Your task to perform on an android device: Is it going to rain tomorrow? Image 0: 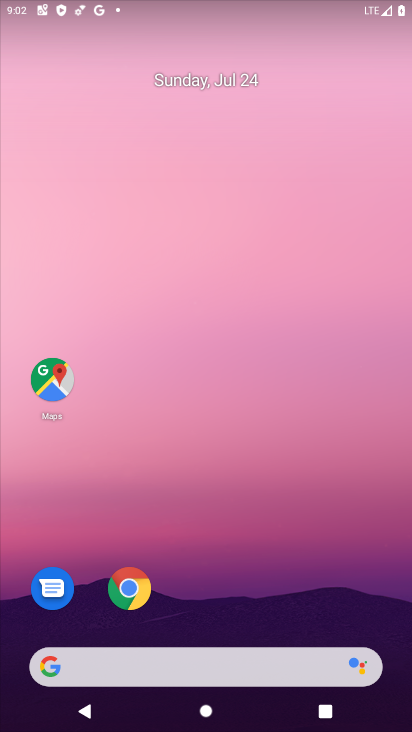
Step 0: drag from (221, 663) to (214, 180)
Your task to perform on an android device: Is it going to rain tomorrow? Image 1: 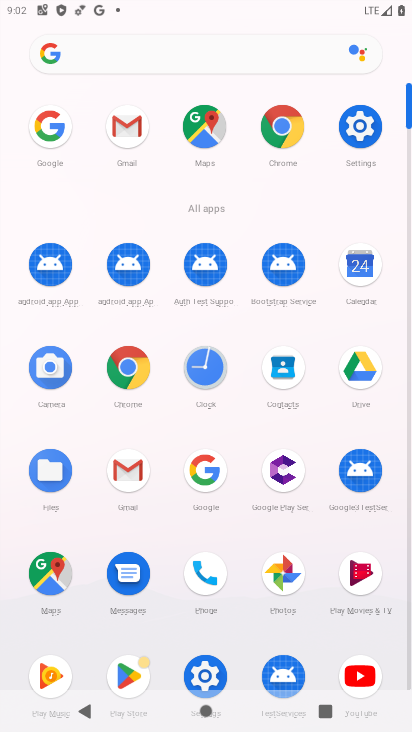
Step 1: click (294, 131)
Your task to perform on an android device: Is it going to rain tomorrow? Image 2: 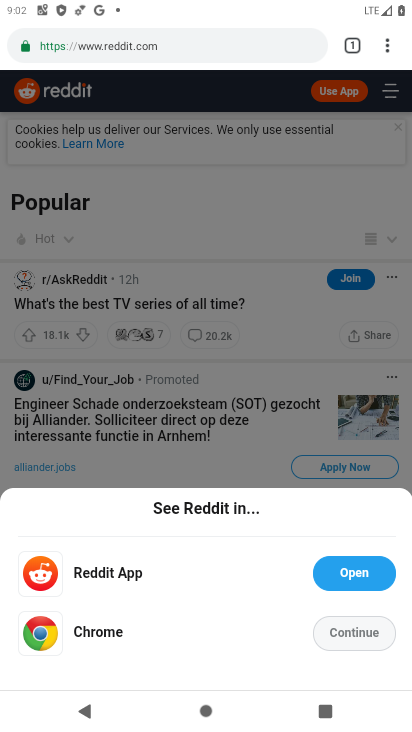
Step 2: click (175, 55)
Your task to perform on an android device: Is it going to rain tomorrow? Image 3: 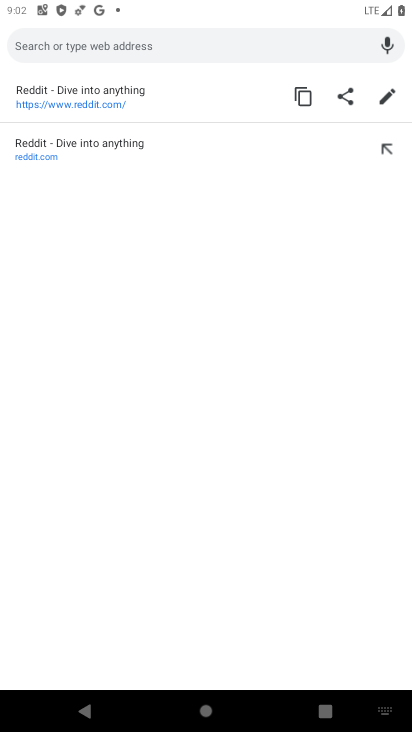
Step 3: type "weather tomorrow"
Your task to perform on an android device: Is it going to rain tomorrow? Image 4: 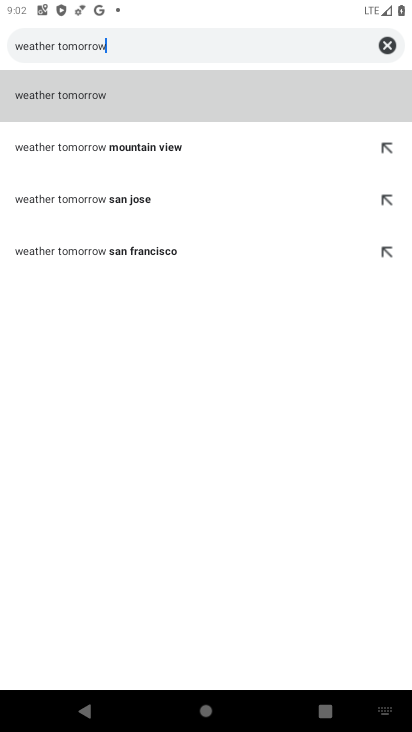
Step 4: click (158, 110)
Your task to perform on an android device: Is it going to rain tomorrow? Image 5: 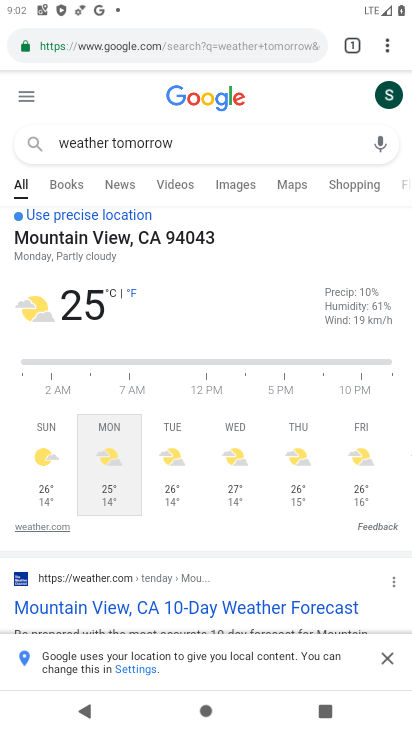
Step 5: task complete